Your task to perform on an android device: open the mobile data screen to see how much data has been used Image 0: 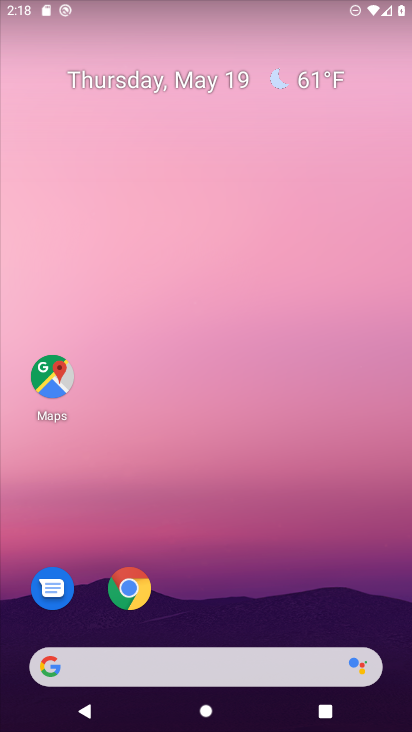
Step 0: drag from (357, 588) to (316, 18)
Your task to perform on an android device: open the mobile data screen to see how much data has been used Image 1: 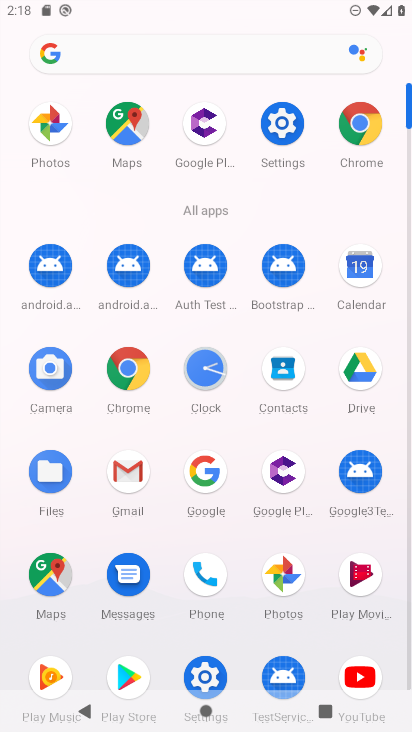
Step 1: click (277, 131)
Your task to perform on an android device: open the mobile data screen to see how much data has been used Image 2: 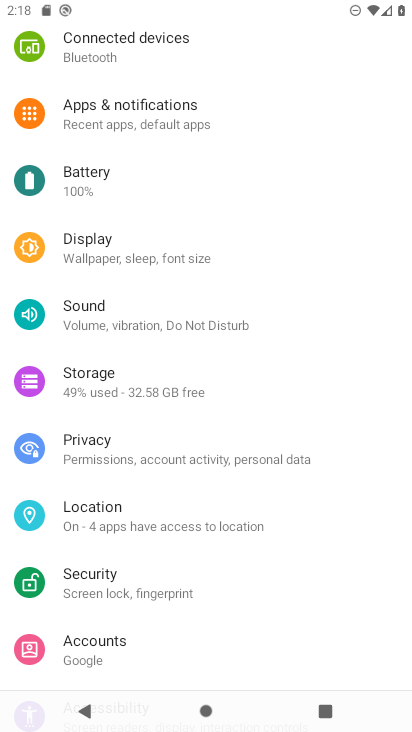
Step 2: drag from (231, 120) to (220, 485)
Your task to perform on an android device: open the mobile data screen to see how much data has been used Image 3: 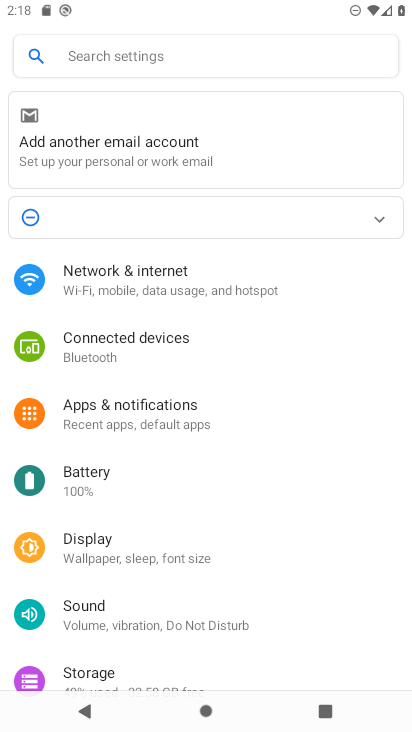
Step 3: click (124, 283)
Your task to perform on an android device: open the mobile data screen to see how much data has been used Image 4: 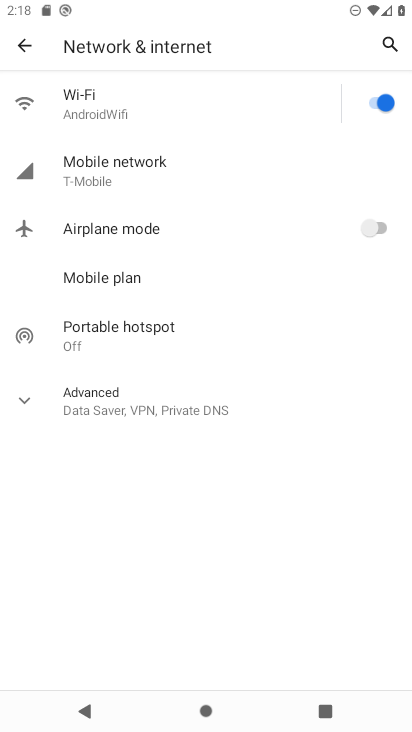
Step 4: click (104, 167)
Your task to perform on an android device: open the mobile data screen to see how much data has been used Image 5: 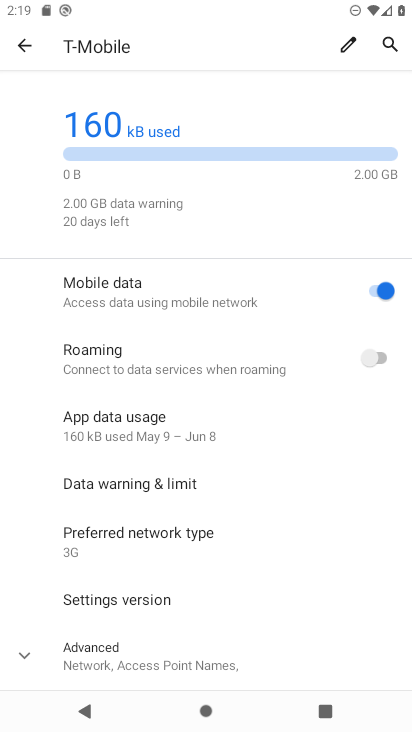
Step 5: click (99, 433)
Your task to perform on an android device: open the mobile data screen to see how much data has been used Image 6: 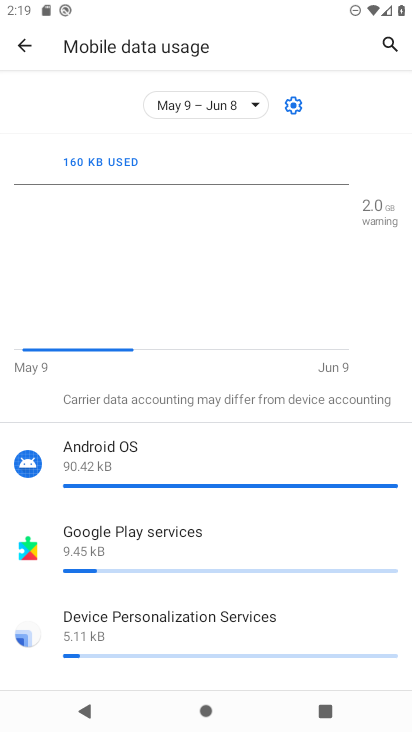
Step 6: task complete